Your task to perform on an android device: turn on wifi Image 0: 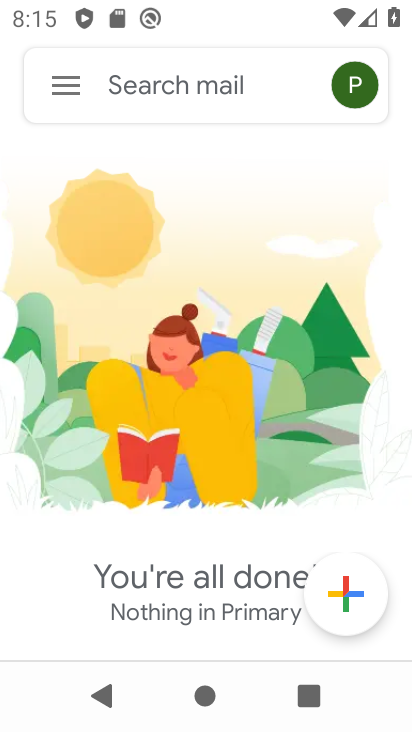
Step 0: press back button
Your task to perform on an android device: turn on wifi Image 1: 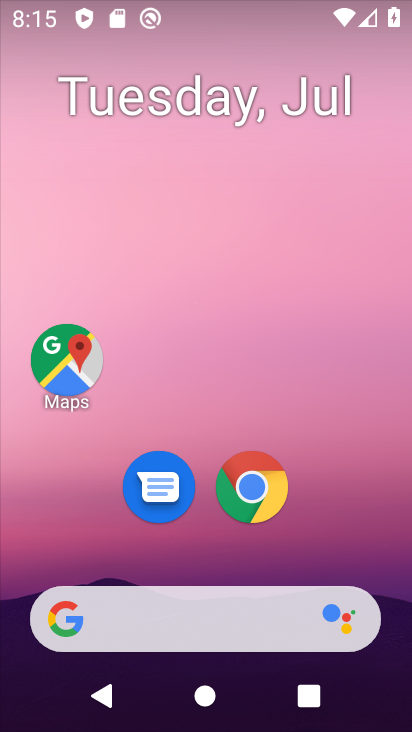
Step 1: task complete